Your task to perform on an android device: all mails in gmail Image 0: 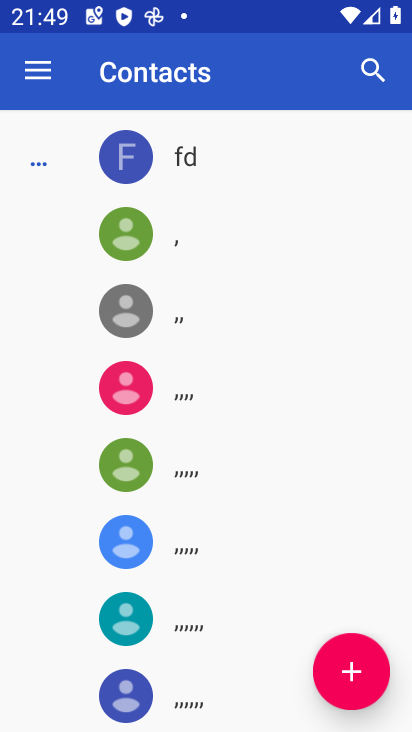
Step 0: press home button
Your task to perform on an android device: all mails in gmail Image 1: 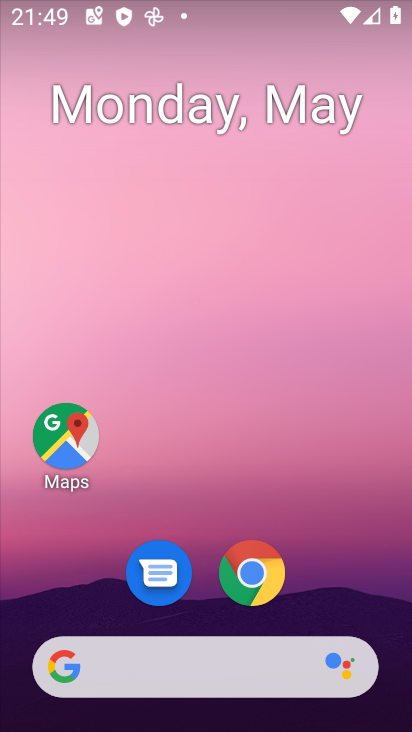
Step 1: drag from (349, 604) to (290, 70)
Your task to perform on an android device: all mails in gmail Image 2: 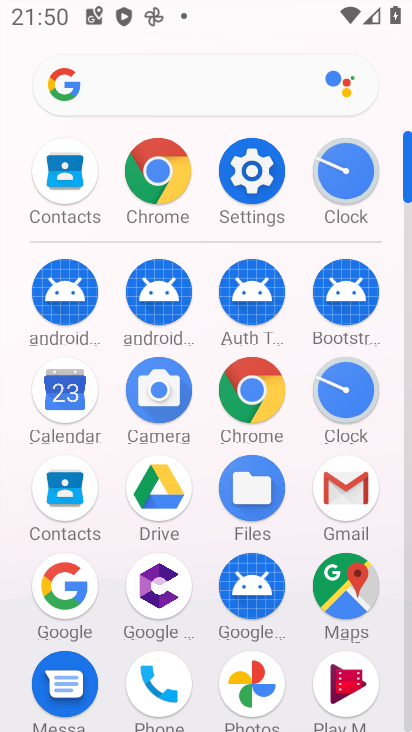
Step 2: click (350, 488)
Your task to perform on an android device: all mails in gmail Image 3: 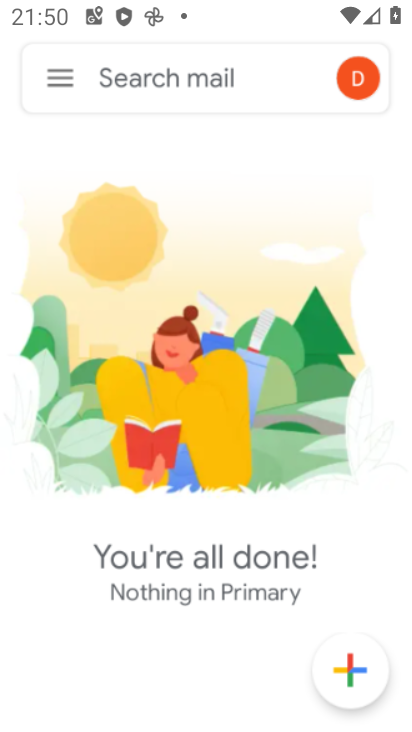
Step 3: task complete